Your task to perform on an android device: open wifi settings Image 0: 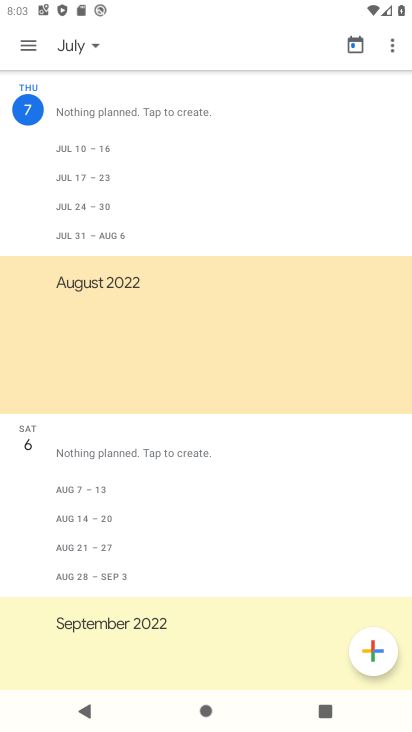
Step 0: drag from (212, 581) to (203, 55)
Your task to perform on an android device: open wifi settings Image 1: 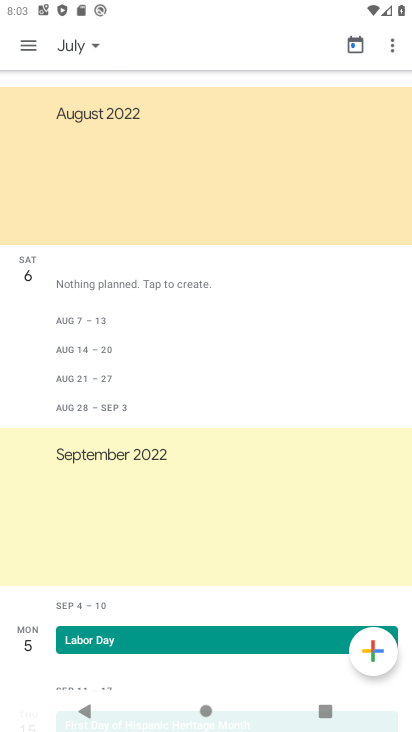
Step 1: press home button
Your task to perform on an android device: open wifi settings Image 2: 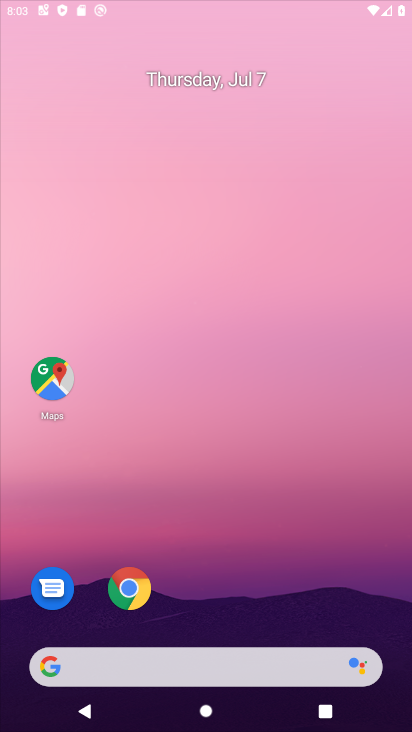
Step 2: drag from (202, 595) to (266, 133)
Your task to perform on an android device: open wifi settings Image 3: 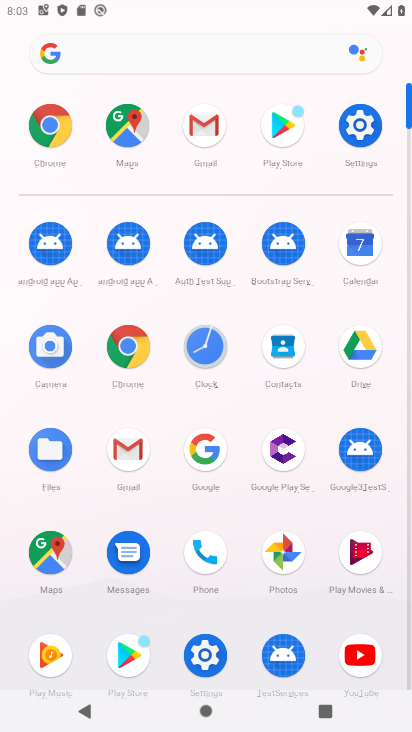
Step 3: click (356, 120)
Your task to perform on an android device: open wifi settings Image 4: 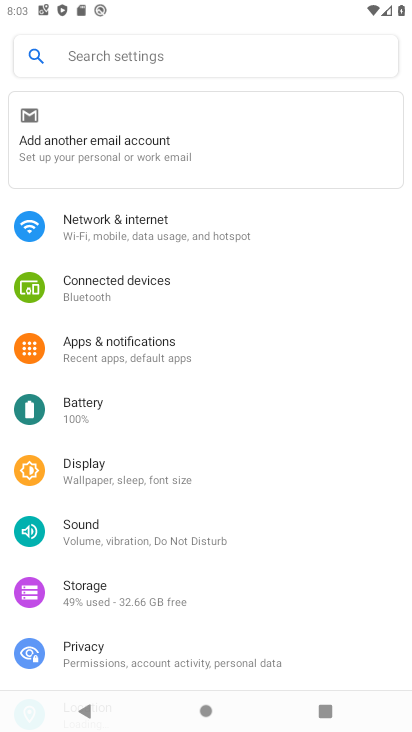
Step 4: drag from (254, 592) to (302, 310)
Your task to perform on an android device: open wifi settings Image 5: 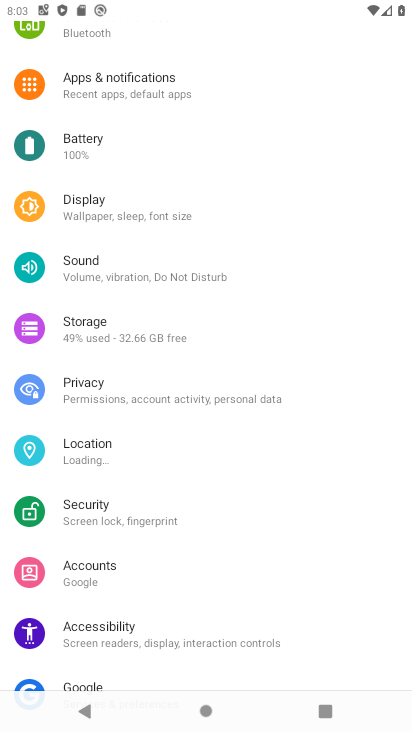
Step 5: drag from (304, 148) to (255, 727)
Your task to perform on an android device: open wifi settings Image 6: 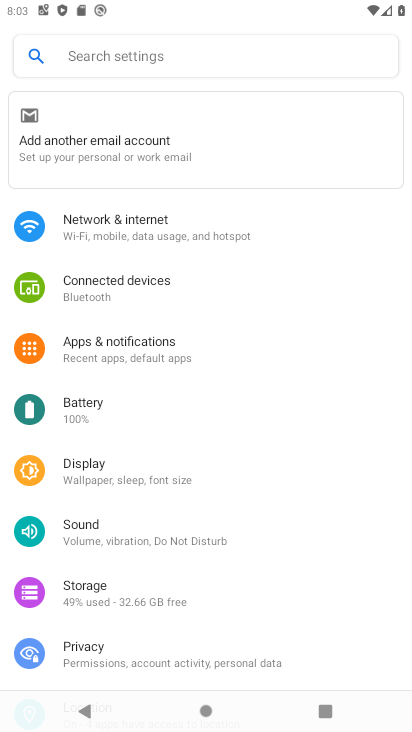
Step 6: click (166, 222)
Your task to perform on an android device: open wifi settings Image 7: 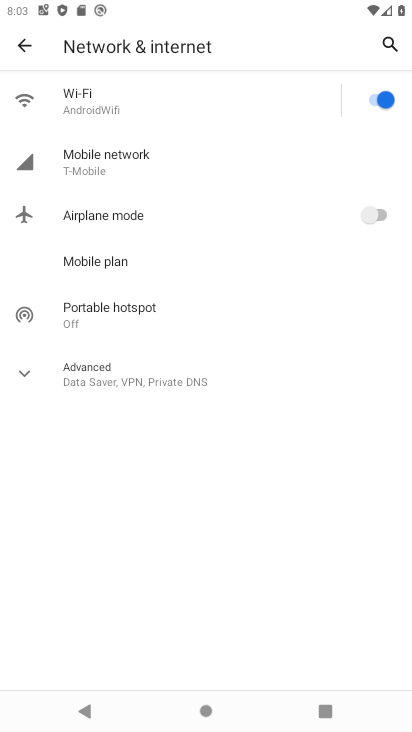
Step 7: click (212, 109)
Your task to perform on an android device: open wifi settings Image 8: 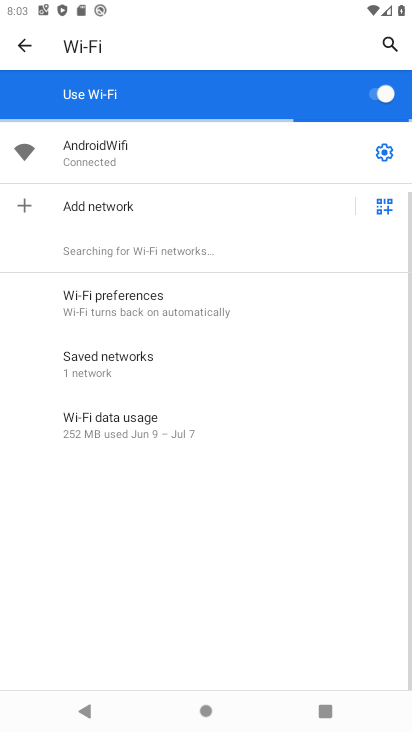
Step 8: click (378, 150)
Your task to perform on an android device: open wifi settings Image 9: 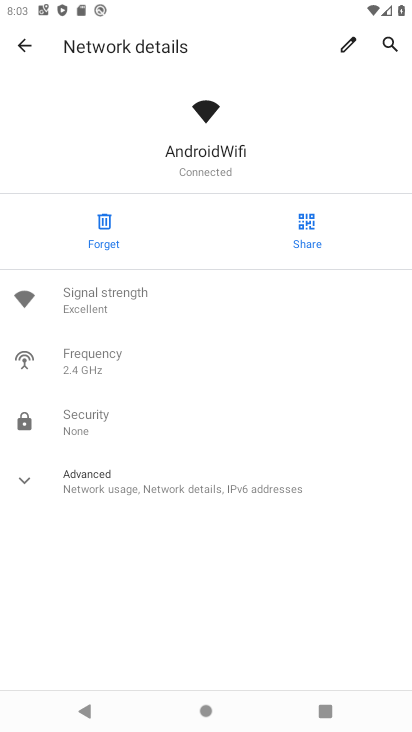
Step 9: task complete